Your task to perform on an android device: allow cookies in the chrome app Image 0: 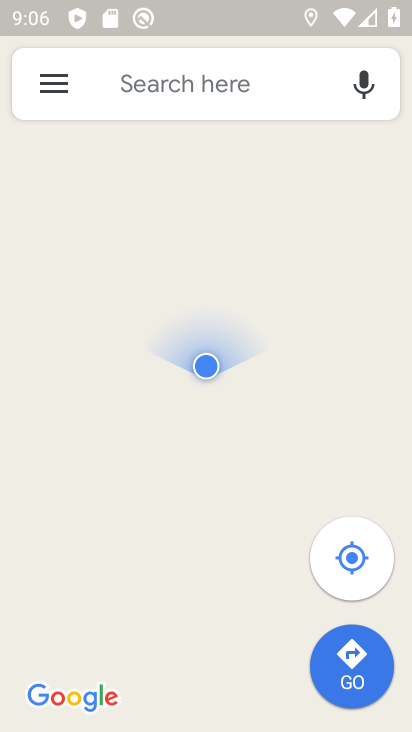
Step 0: press back button
Your task to perform on an android device: allow cookies in the chrome app Image 1: 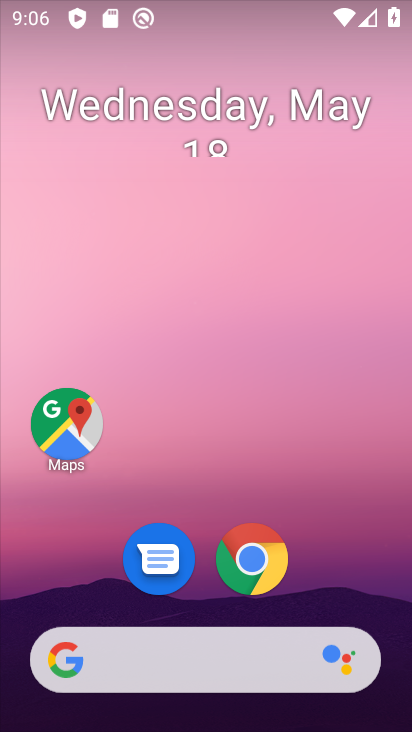
Step 1: drag from (324, 585) to (293, 4)
Your task to perform on an android device: allow cookies in the chrome app Image 2: 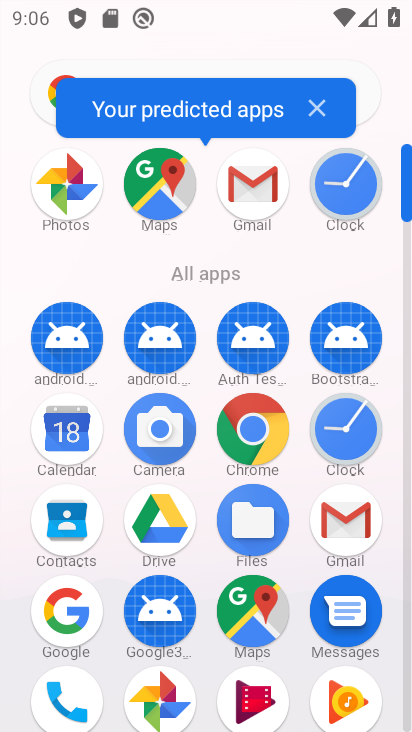
Step 2: drag from (13, 539) to (26, 293)
Your task to perform on an android device: allow cookies in the chrome app Image 3: 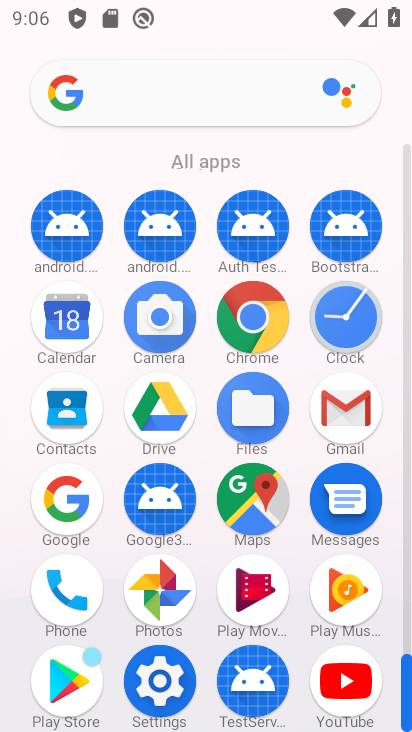
Step 3: click (257, 313)
Your task to perform on an android device: allow cookies in the chrome app Image 4: 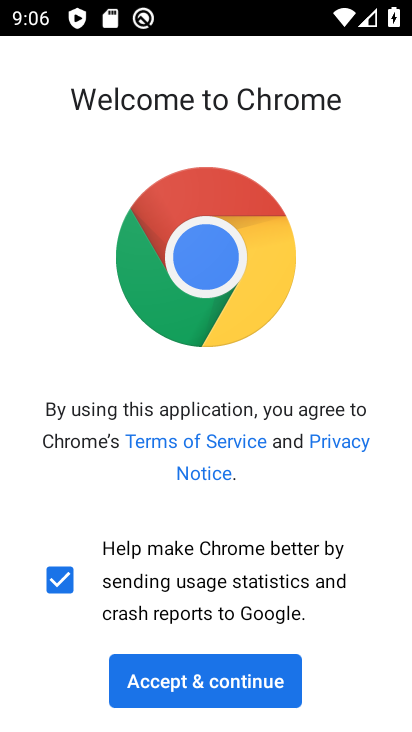
Step 4: click (200, 671)
Your task to perform on an android device: allow cookies in the chrome app Image 5: 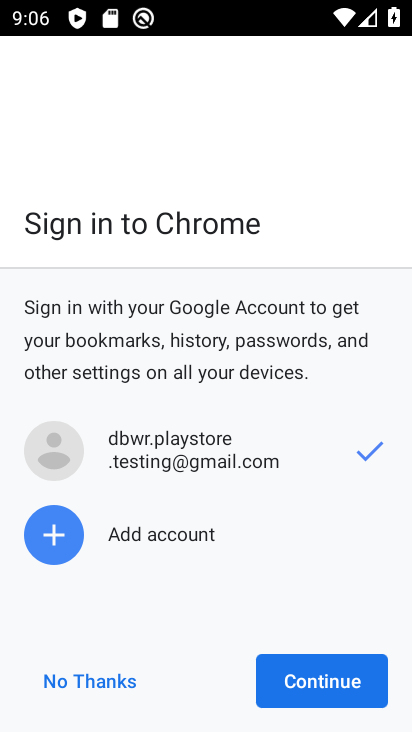
Step 5: click (307, 684)
Your task to perform on an android device: allow cookies in the chrome app Image 6: 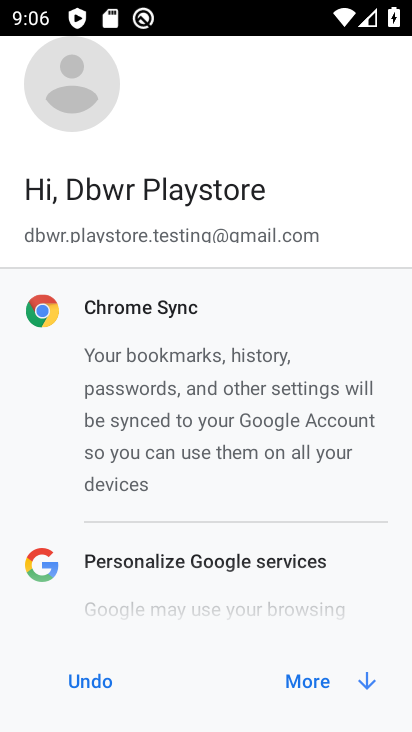
Step 6: click (307, 684)
Your task to perform on an android device: allow cookies in the chrome app Image 7: 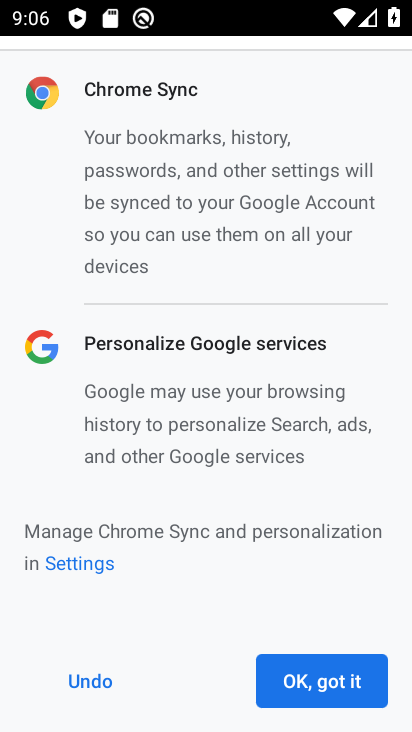
Step 7: click (307, 684)
Your task to perform on an android device: allow cookies in the chrome app Image 8: 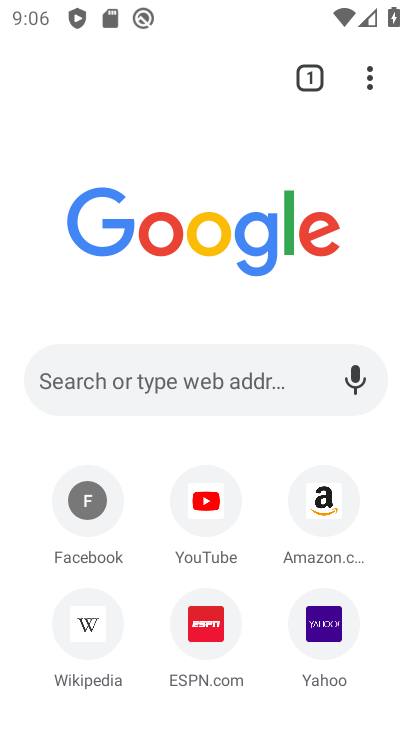
Step 8: drag from (376, 80) to (96, 623)
Your task to perform on an android device: allow cookies in the chrome app Image 9: 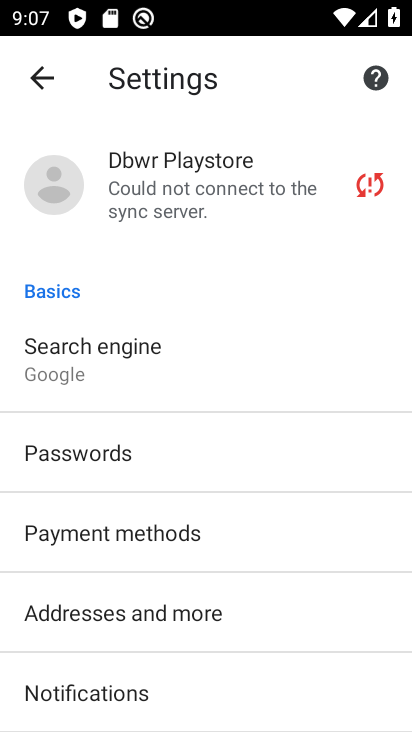
Step 9: drag from (217, 643) to (250, 203)
Your task to perform on an android device: allow cookies in the chrome app Image 10: 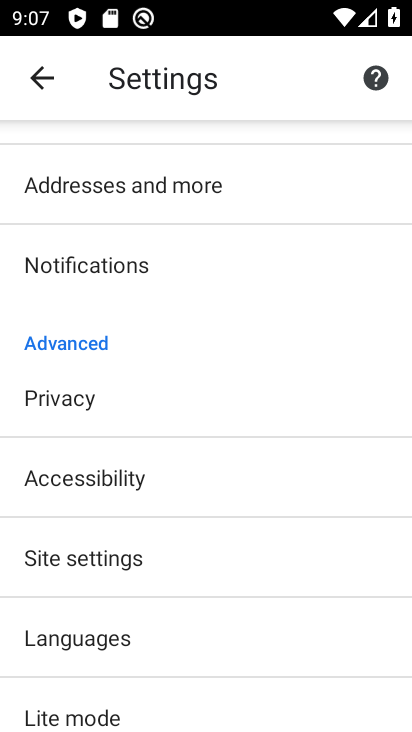
Step 10: click (139, 548)
Your task to perform on an android device: allow cookies in the chrome app Image 11: 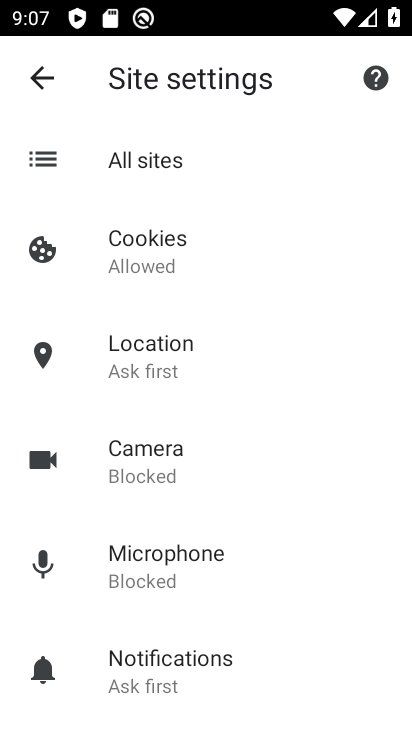
Step 11: task complete